Your task to perform on an android device: stop showing notifications on the lock screen Image 0: 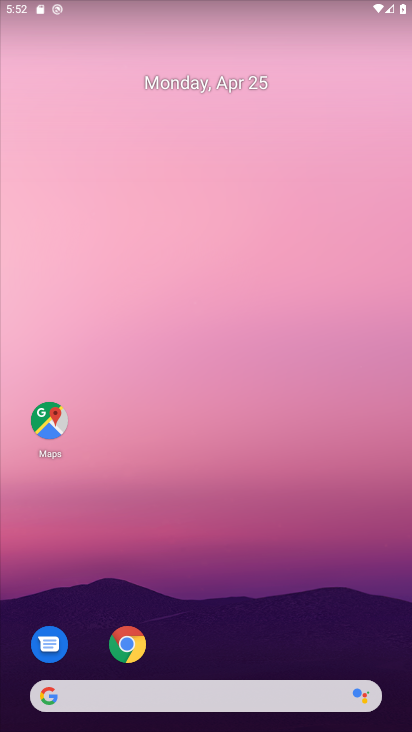
Step 0: drag from (254, 582) to (160, 10)
Your task to perform on an android device: stop showing notifications on the lock screen Image 1: 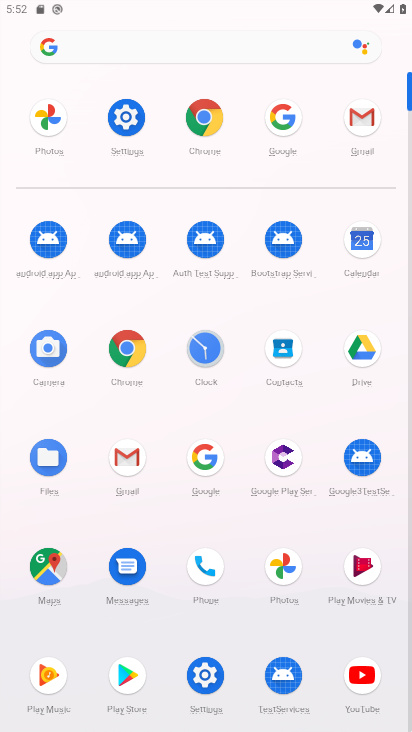
Step 1: click (118, 127)
Your task to perform on an android device: stop showing notifications on the lock screen Image 2: 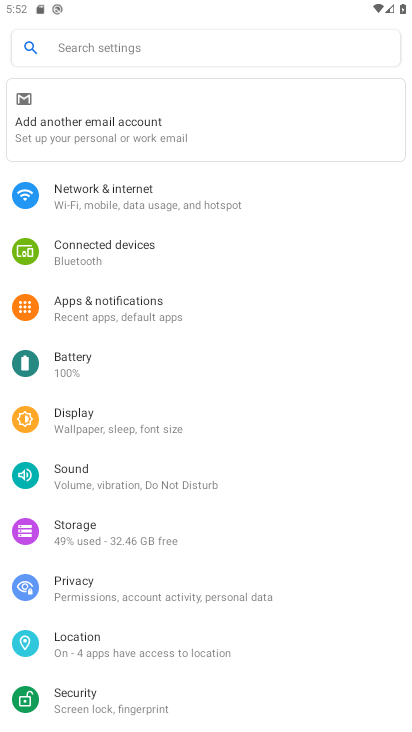
Step 2: click (185, 295)
Your task to perform on an android device: stop showing notifications on the lock screen Image 3: 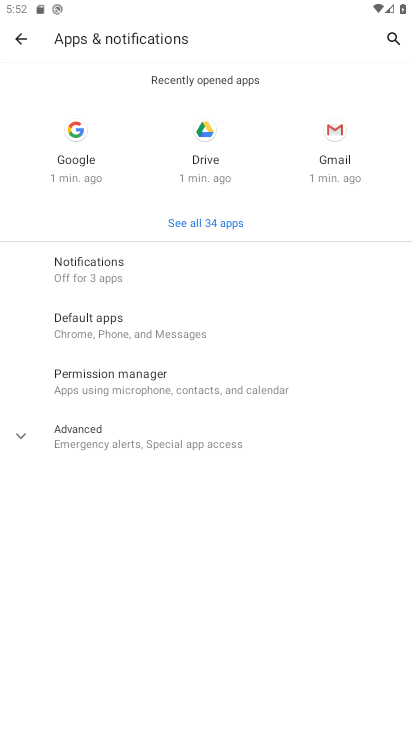
Step 3: click (174, 261)
Your task to perform on an android device: stop showing notifications on the lock screen Image 4: 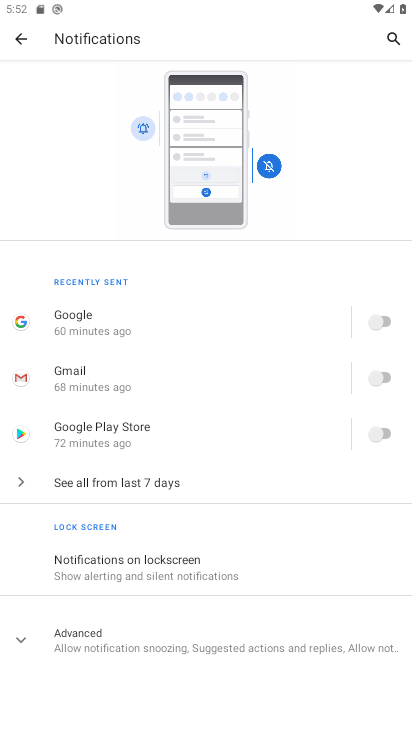
Step 4: click (175, 554)
Your task to perform on an android device: stop showing notifications on the lock screen Image 5: 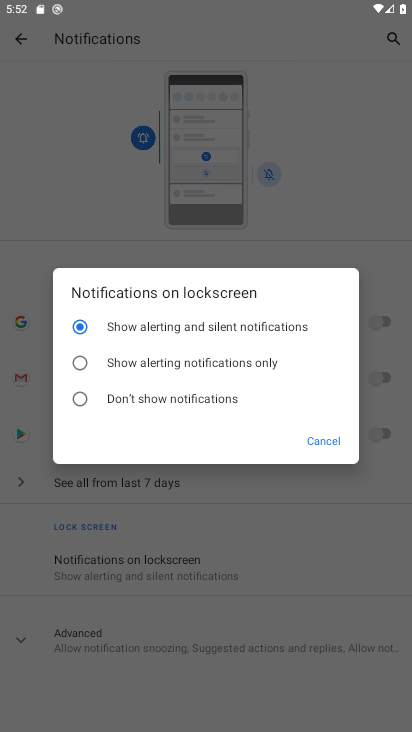
Step 5: click (212, 396)
Your task to perform on an android device: stop showing notifications on the lock screen Image 6: 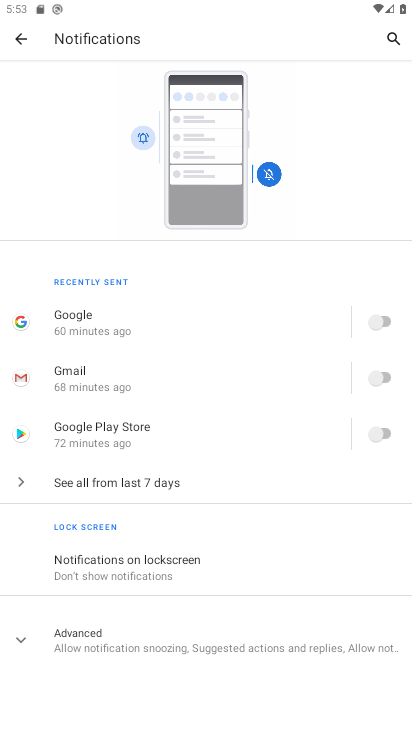
Step 6: task complete